Your task to perform on an android device: turn off sleep mode Image 0: 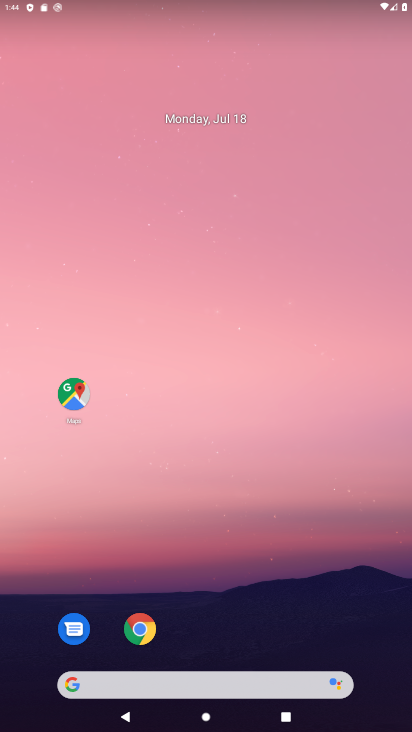
Step 0: drag from (173, 630) to (179, 232)
Your task to perform on an android device: turn off sleep mode Image 1: 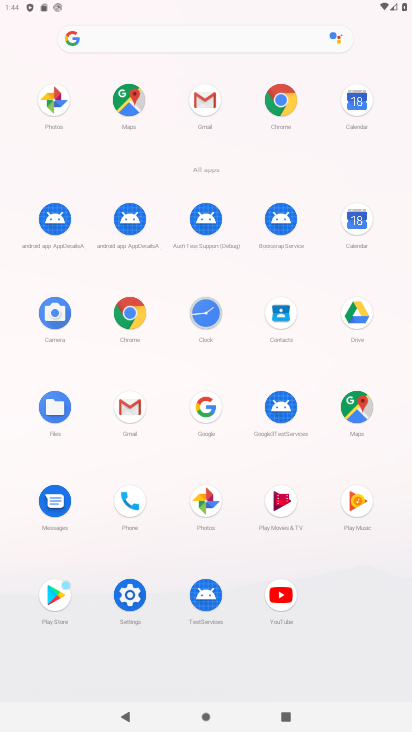
Step 1: click (134, 589)
Your task to perform on an android device: turn off sleep mode Image 2: 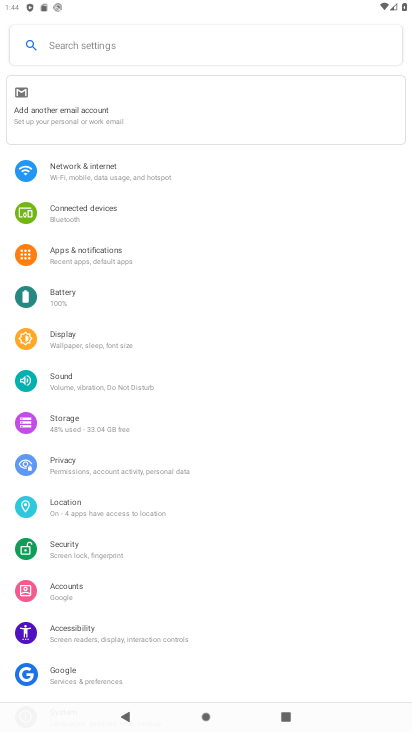
Step 2: click (95, 346)
Your task to perform on an android device: turn off sleep mode Image 3: 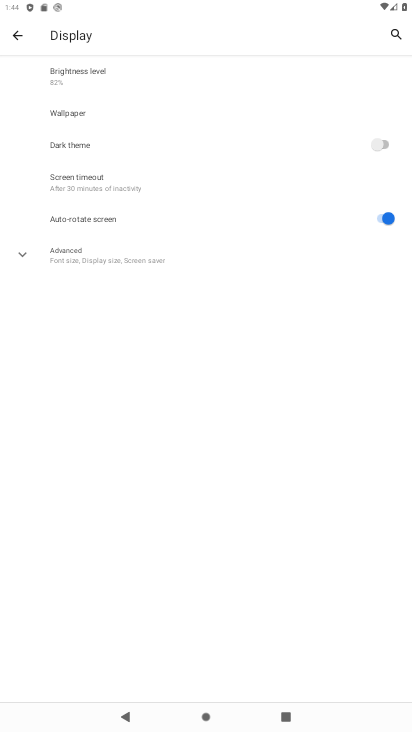
Step 3: click (133, 178)
Your task to perform on an android device: turn off sleep mode Image 4: 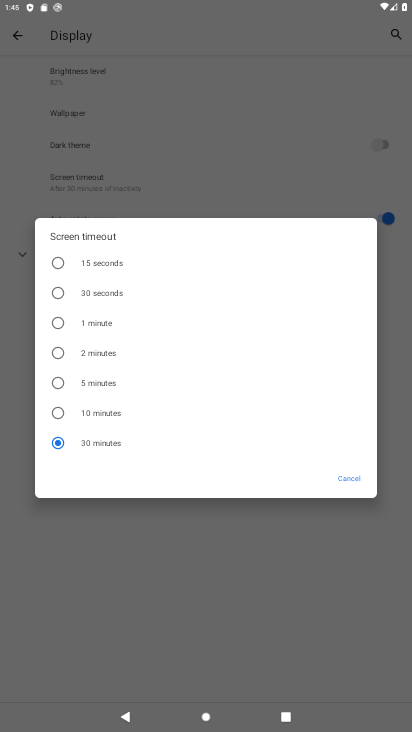
Step 4: click (111, 273)
Your task to perform on an android device: turn off sleep mode Image 5: 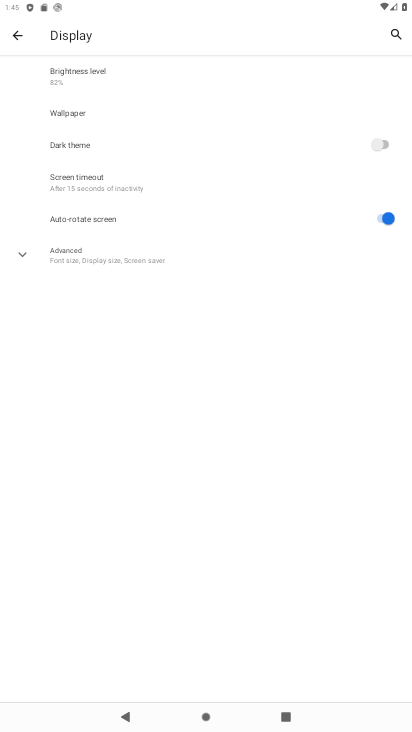
Step 5: task complete